Your task to perform on an android device: remove spam from my inbox in the gmail app Image 0: 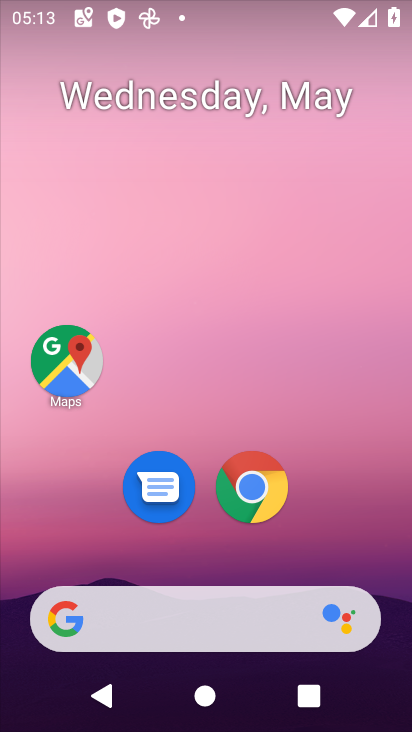
Step 0: drag from (342, 557) to (322, 261)
Your task to perform on an android device: remove spam from my inbox in the gmail app Image 1: 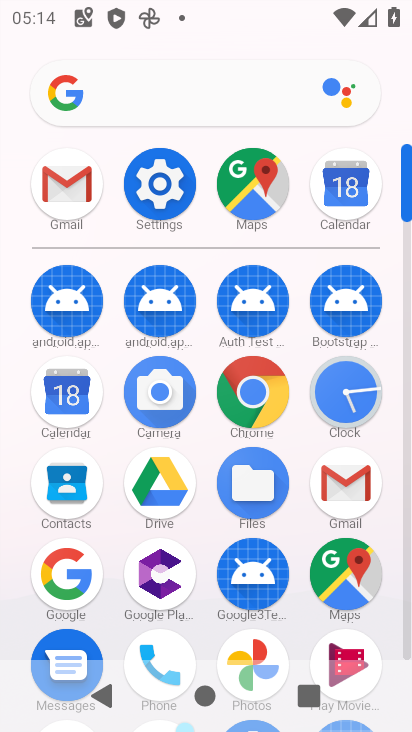
Step 1: click (88, 195)
Your task to perform on an android device: remove spam from my inbox in the gmail app Image 2: 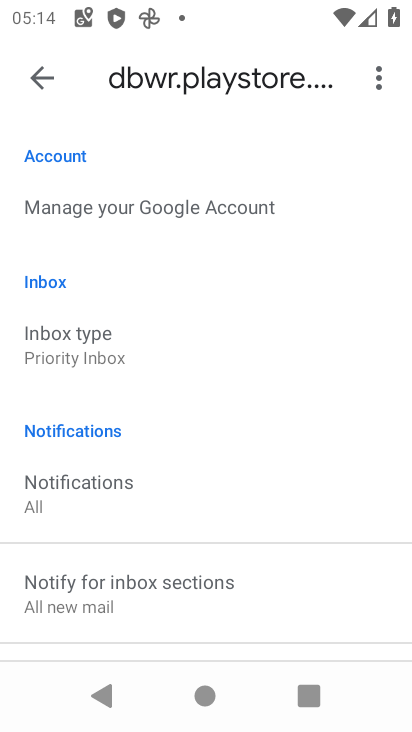
Step 2: click (24, 80)
Your task to perform on an android device: remove spam from my inbox in the gmail app Image 3: 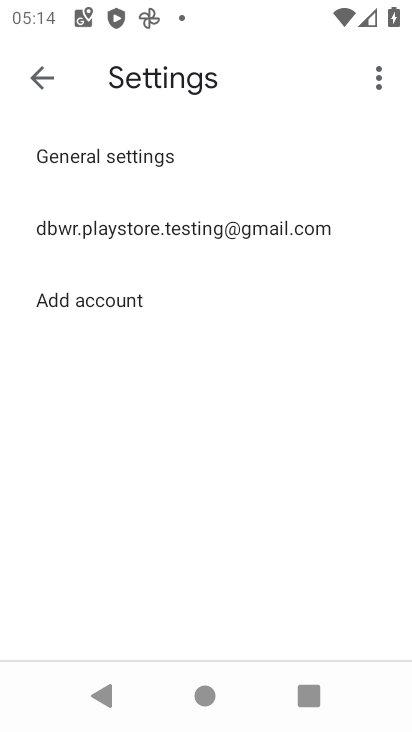
Step 3: click (33, 78)
Your task to perform on an android device: remove spam from my inbox in the gmail app Image 4: 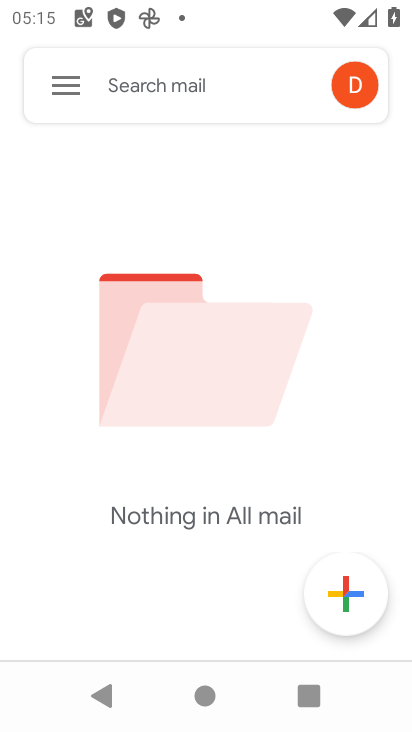
Step 4: click (60, 93)
Your task to perform on an android device: remove spam from my inbox in the gmail app Image 5: 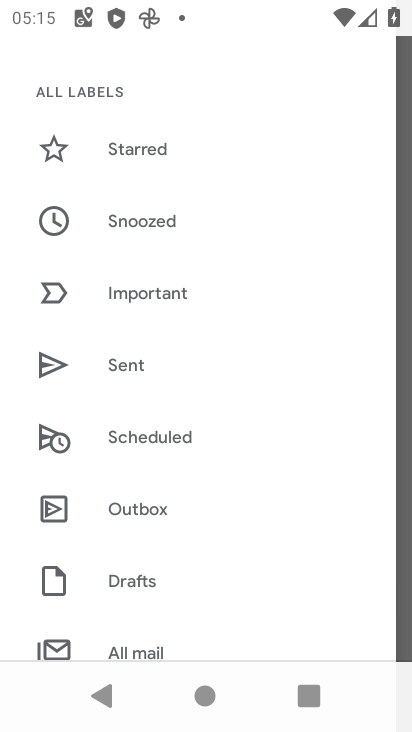
Step 5: task complete